Your task to perform on an android device: Open Yahoo.com Image 0: 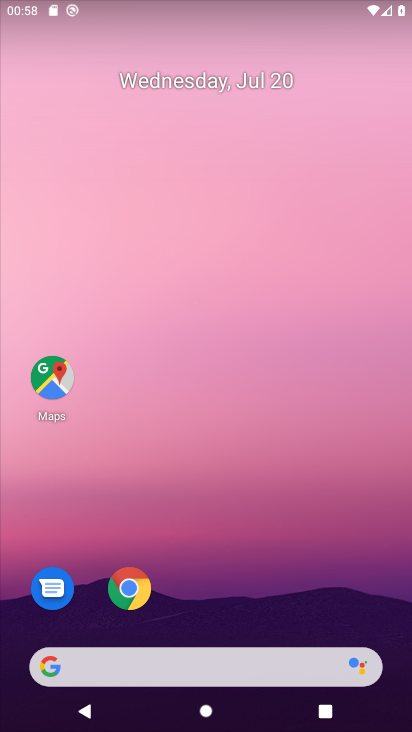
Step 0: drag from (137, 615) to (153, 187)
Your task to perform on an android device: Open Yahoo.com Image 1: 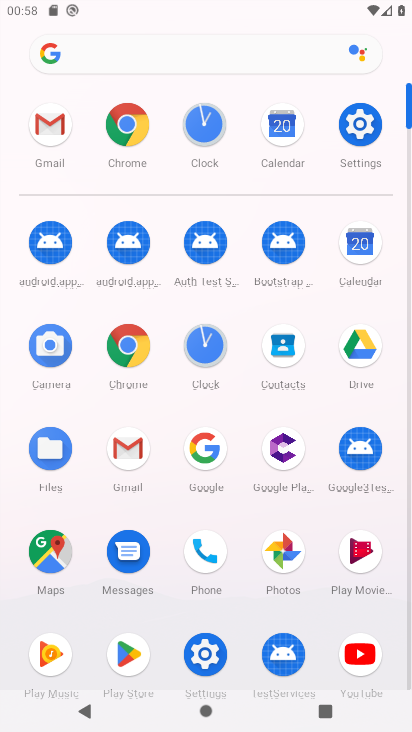
Step 1: click (115, 124)
Your task to perform on an android device: Open Yahoo.com Image 2: 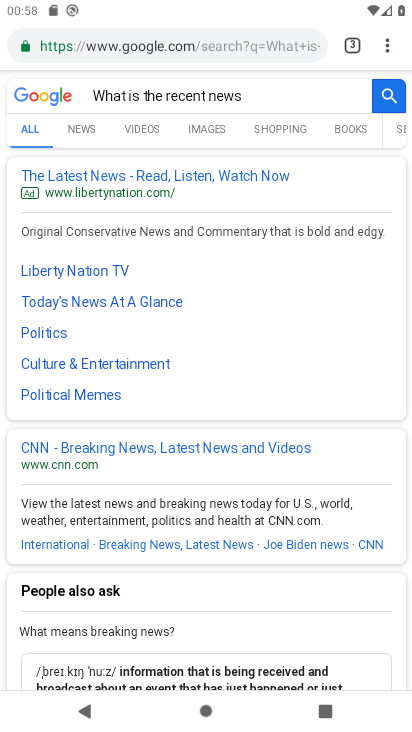
Step 2: click (389, 35)
Your task to perform on an android device: Open Yahoo.com Image 3: 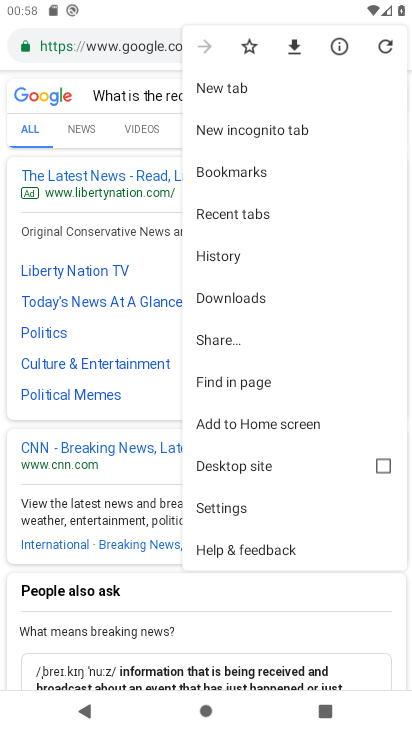
Step 3: click (253, 89)
Your task to perform on an android device: Open Yahoo.com Image 4: 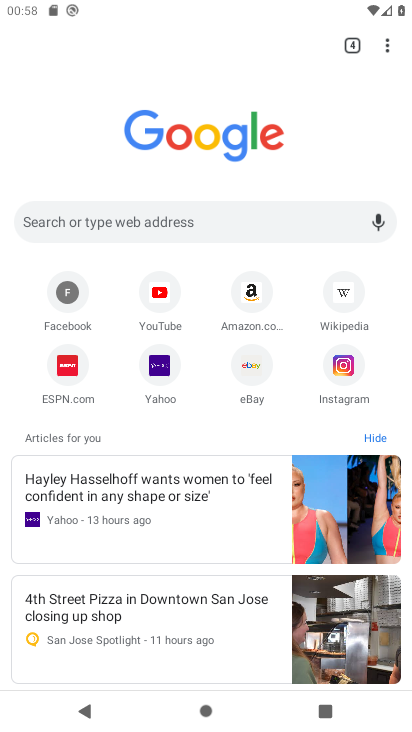
Step 4: click (170, 364)
Your task to perform on an android device: Open Yahoo.com Image 5: 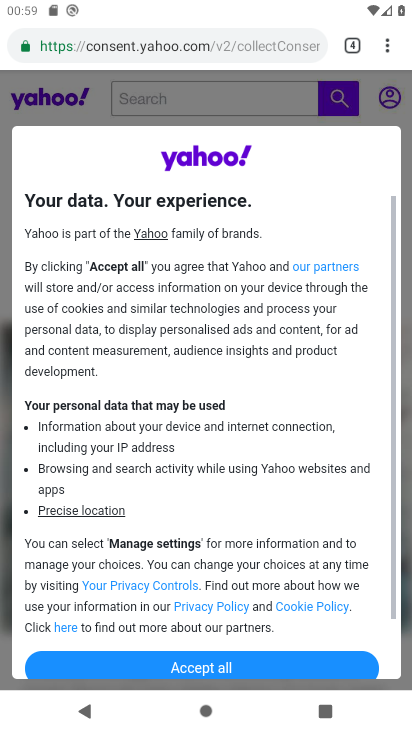
Step 5: task complete